Your task to perform on an android device: Toggle the flashlight Image 0: 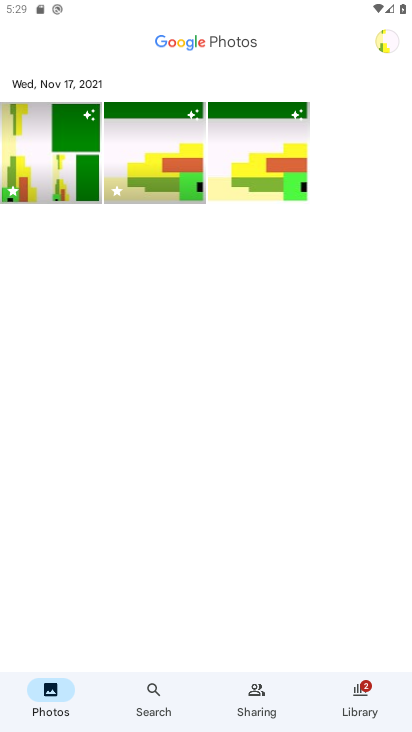
Step 0: press home button
Your task to perform on an android device: Toggle the flashlight Image 1: 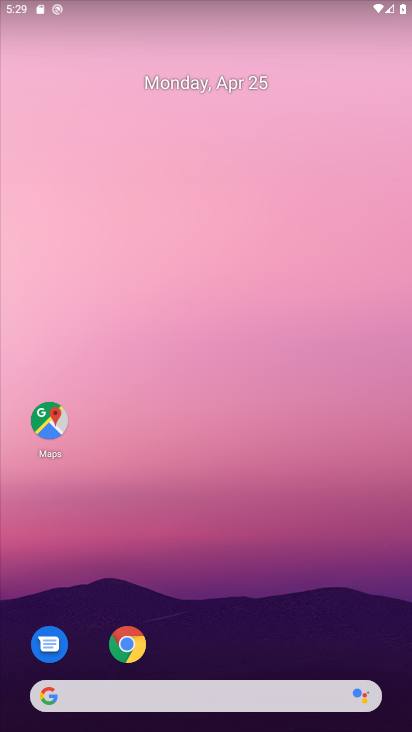
Step 1: task complete